Your task to perform on an android device: Open calendar and show me the fourth week of next month Image 0: 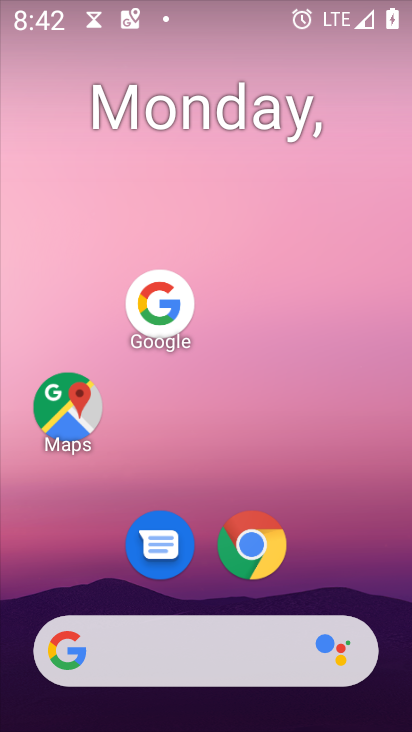
Step 0: press home button
Your task to perform on an android device: Open calendar and show me the fourth week of next month Image 1: 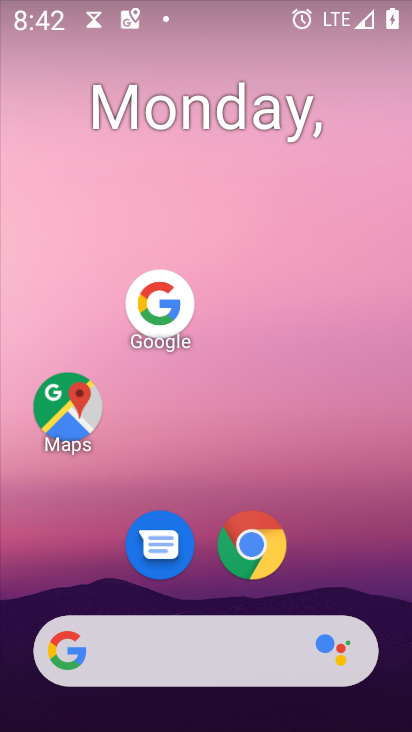
Step 1: drag from (147, 646) to (293, 93)
Your task to perform on an android device: Open calendar and show me the fourth week of next month Image 2: 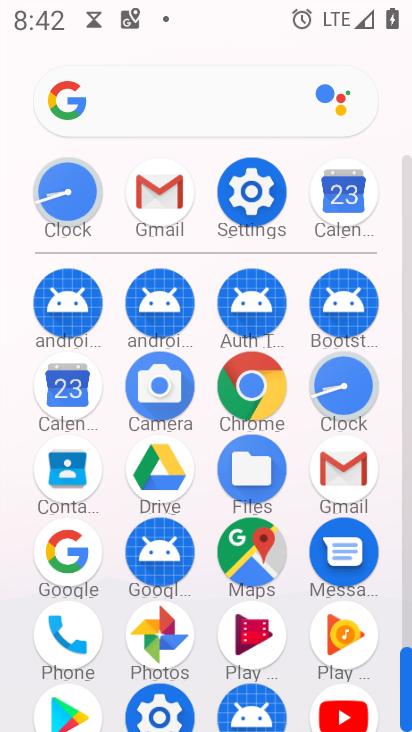
Step 2: click (71, 387)
Your task to perform on an android device: Open calendar and show me the fourth week of next month Image 3: 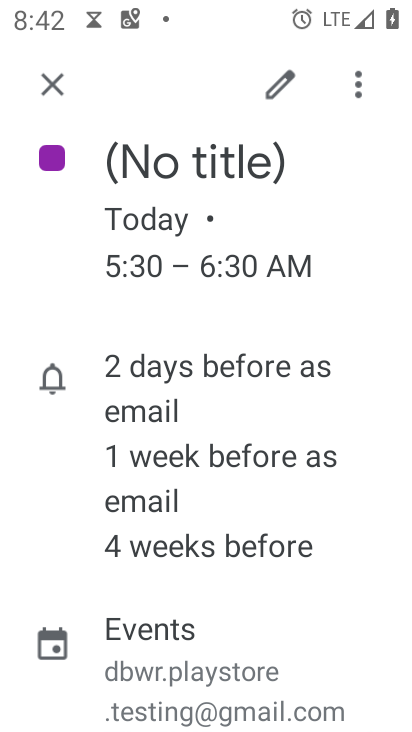
Step 3: click (51, 80)
Your task to perform on an android device: Open calendar and show me the fourth week of next month Image 4: 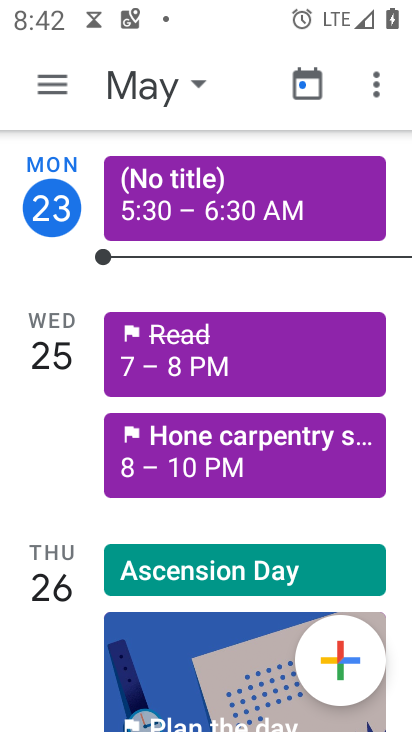
Step 4: click (144, 88)
Your task to perform on an android device: Open calendar and show me the fourth week of next month Image 5: 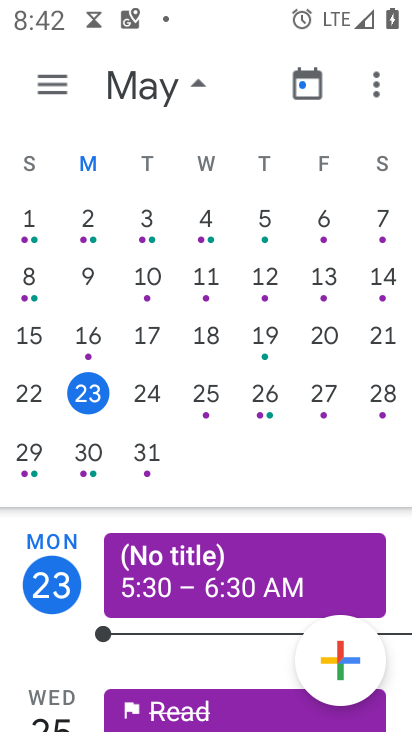
Step 5: drag from (357, 363) to (62, 294)
Your task to perform on an android device: Open calendar and show me the fourth week of next month Image 6: 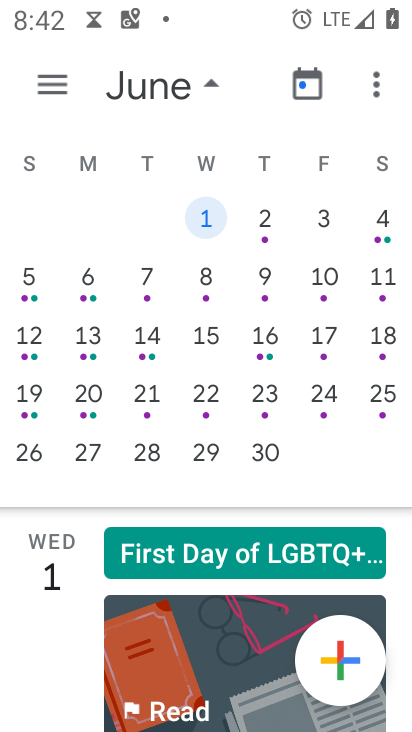
Step 6: click (32, 403)
Your task to perform on an android device: Open calendar and show me the fourth week of next month Image 7: 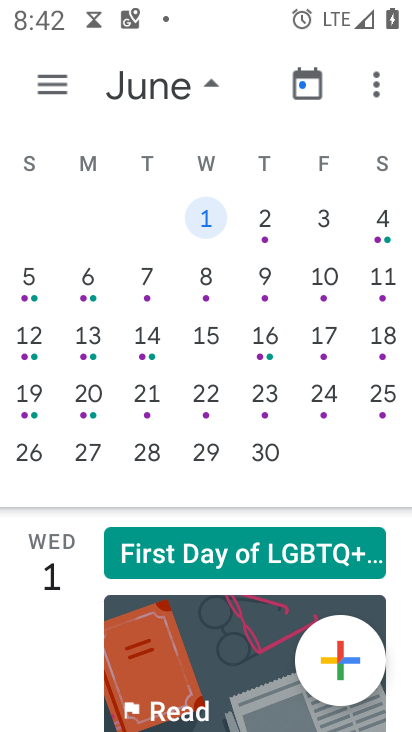
Step 7: click (37, 399)
Your task to perform on an android device: Open calendar and show me the fourth week of next month Image 8: 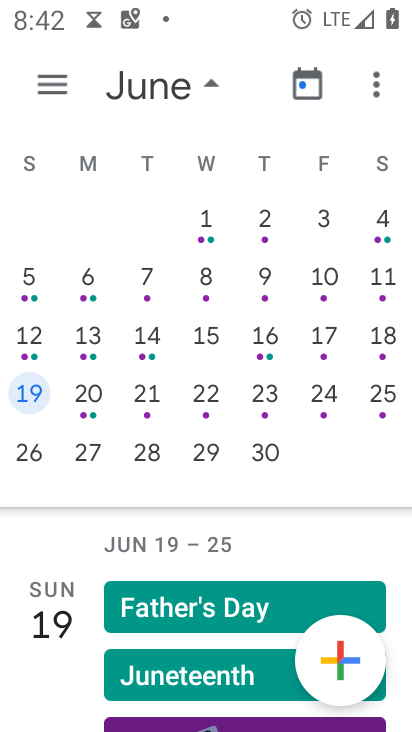
Step 8: click (61, 86)
Your task to perform on an android device: Open calendar and show me the fourth week of next month Image 9: 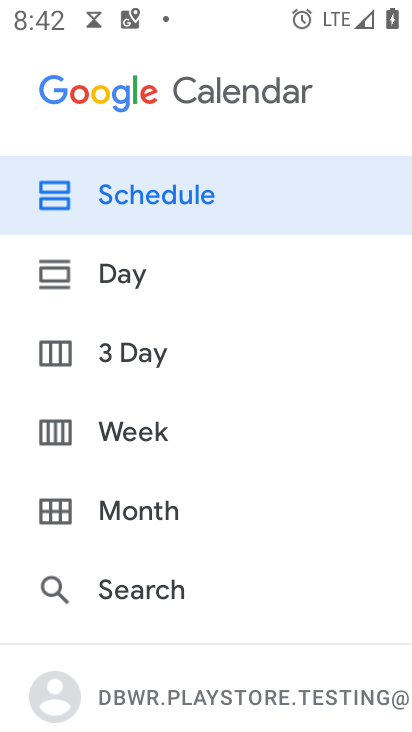
Step 9: click (141, 443)
Your task to perform on an android device: Open calendar and show me the fourth week of next month Image 10: 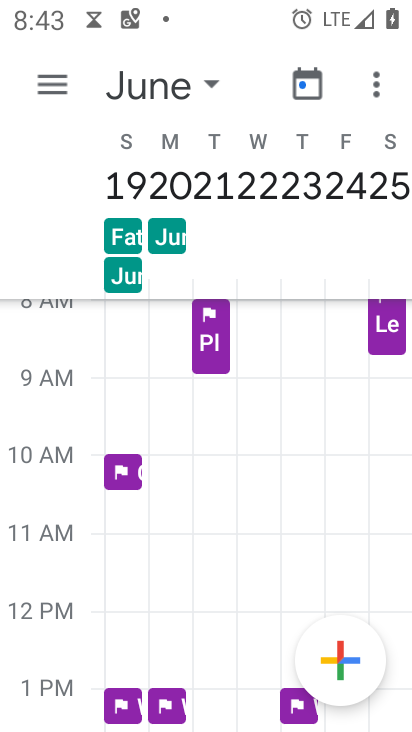
Step 10: task complete